Your task to perform on an android device: open a bookmark in the chrome app Image 0: 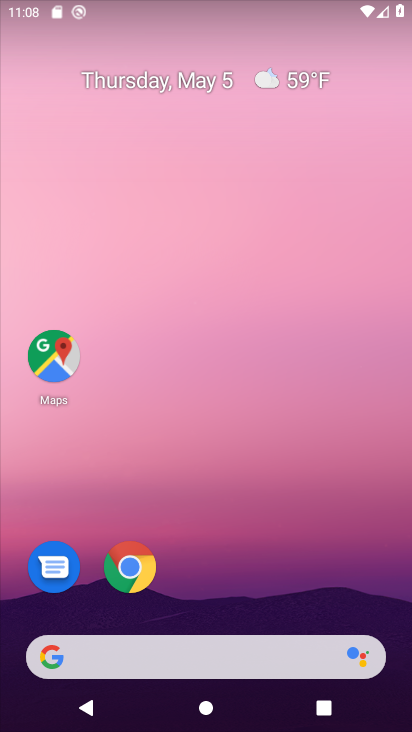
Step 0: click (131, 585)
Your task to perform on an android device: open a bookmark in the chrome app Image 1: 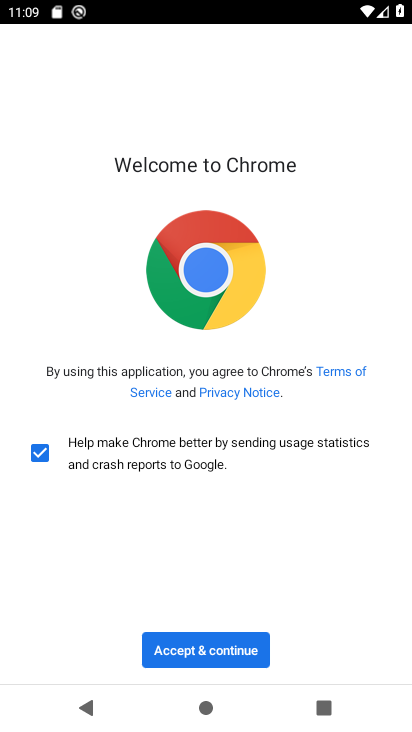
Step 1: click (173, 647)
Your task to perform on an android device: open a bookmark in the chrome app Image 2: 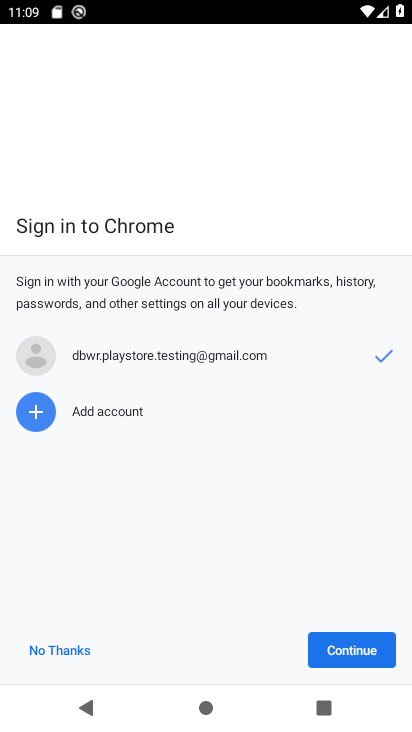
Step 2: click (64, 648)
Your task to perform on an android device: open a bookmark in the chrome app Image 3: 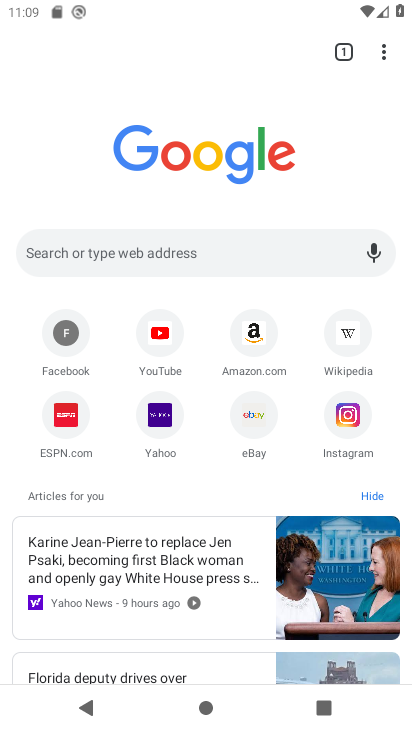
Step 3: drag from (385, 55) to (211, 206)
Your task to perform on an android device: open a bookmark in the chrome app Image 4: 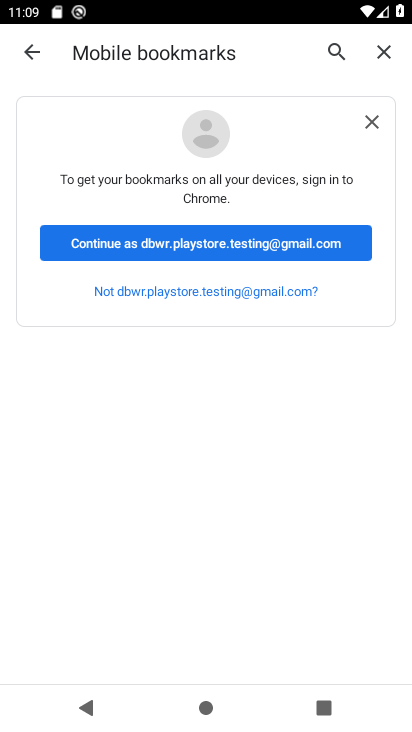
Step 4: click (202, 244)
Your task to perform on an android device: open a bookmark in the chrome app Image 5: 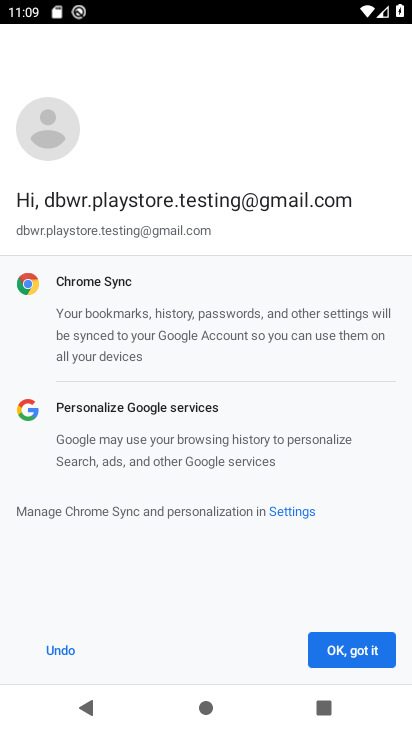
Step 5: click (341, 646)
Your task to perform on an android device: open a bookmark in the chrome app Image 6: 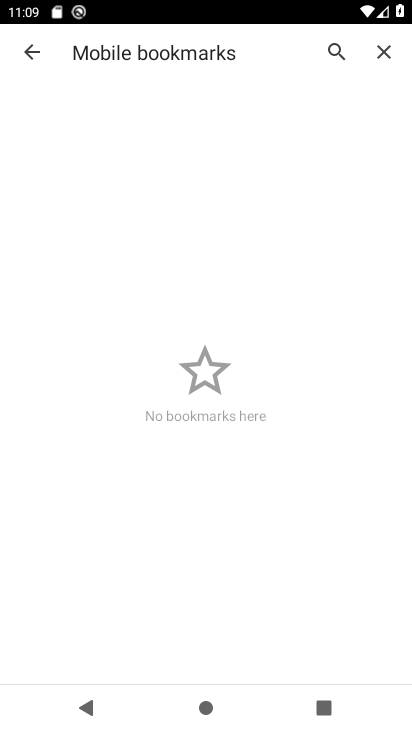
Step 6: click (221, 385)
Your task to perform on an android device: open a bookmark in the chrome app Image 7: 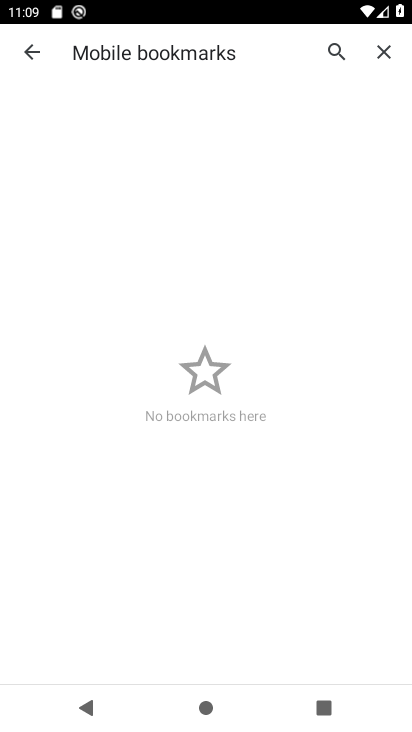
Step 7: drag from (196, 188) to (199, 483)
Your task to perform on an android device: open a bookmark in the chrome app Image 8: 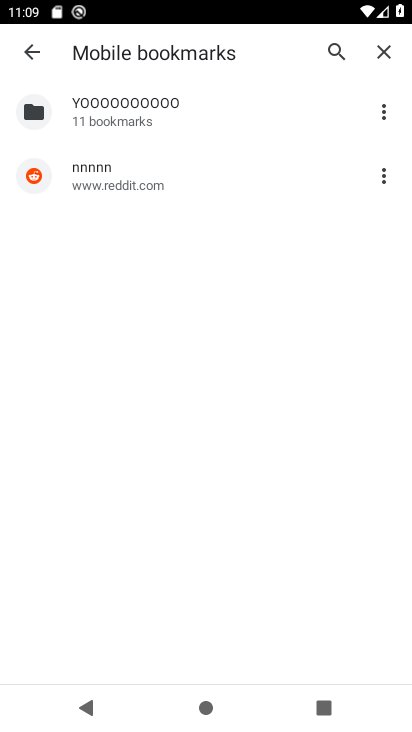
Step 8: click (124, 191)
Your task to perform on an android device: open a bookmark in the chrome app Image 9: 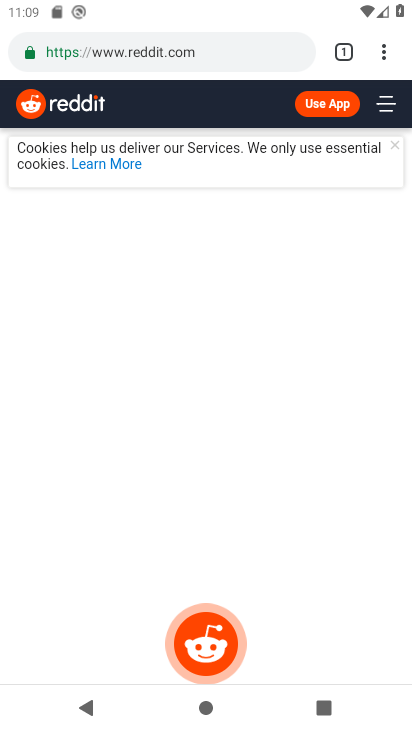
Step 9: task complete